Your task to perform on an android device: Go to Maps Image 0: 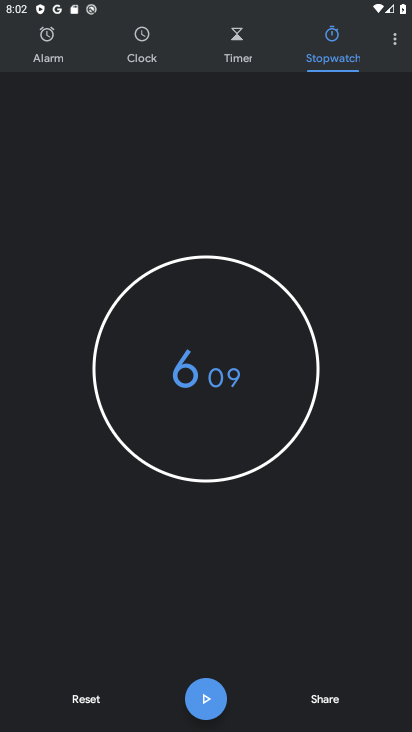
Step 0: press home button
Your task to perform on an android device: Go to Maps Image 1: 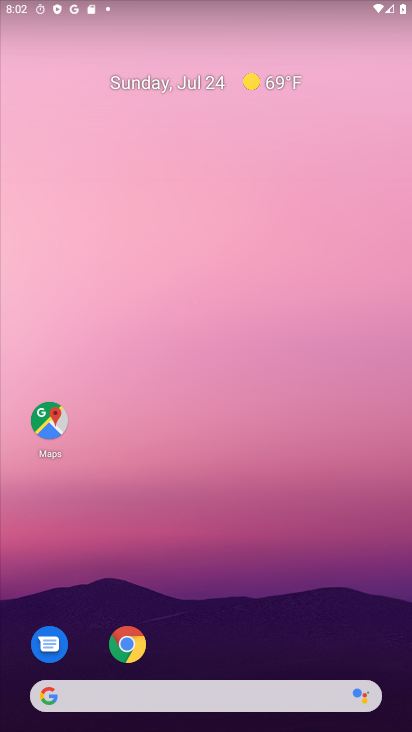
Step 1: click (46, 419)
Your task to perform on an android device: Go to Maps Image 2: 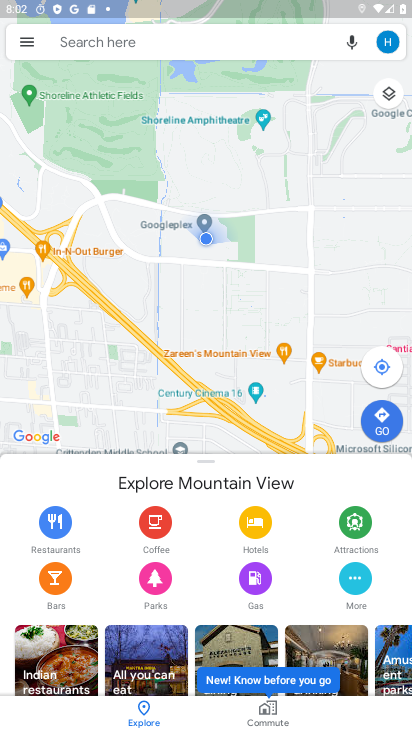
Step 2: task complete